Your task to perform on an android device: add a contact Image 0: 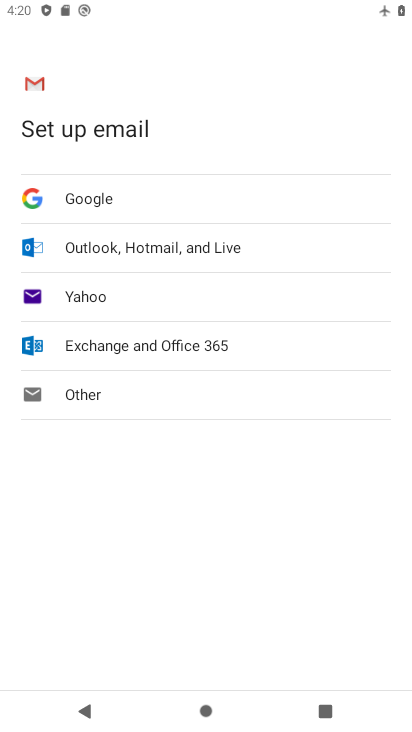
Step 0: press home button
Your task to perform on an android device: add a contact Image 1: 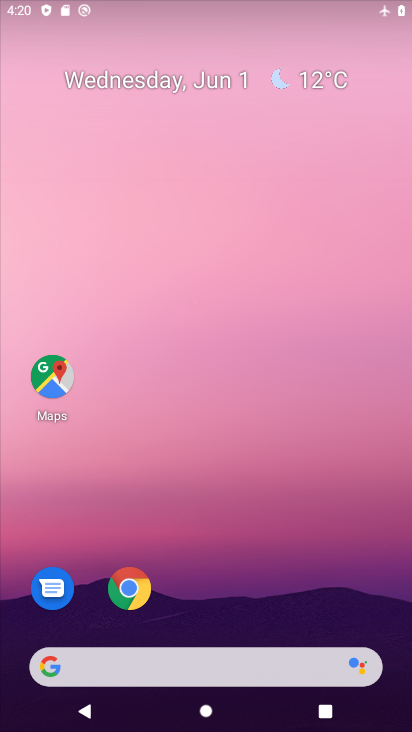
Step 1: drag from (293, 546) to (276, 0)
Your task to perform on an android device: add a contact Image 2: 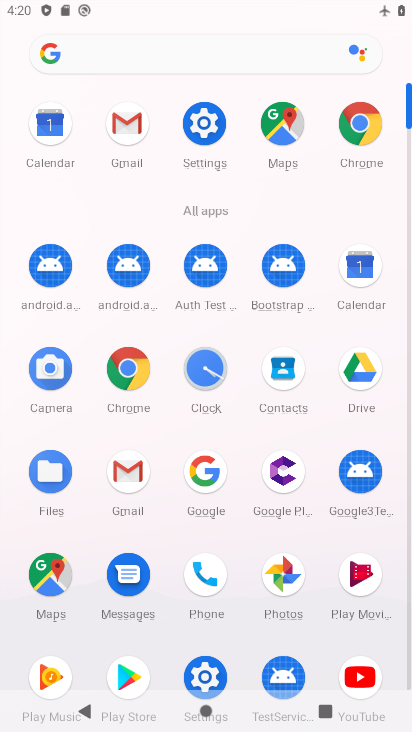
Step 2: click (198, 585)
Your task to perform on an android device: add a contact Image 3: 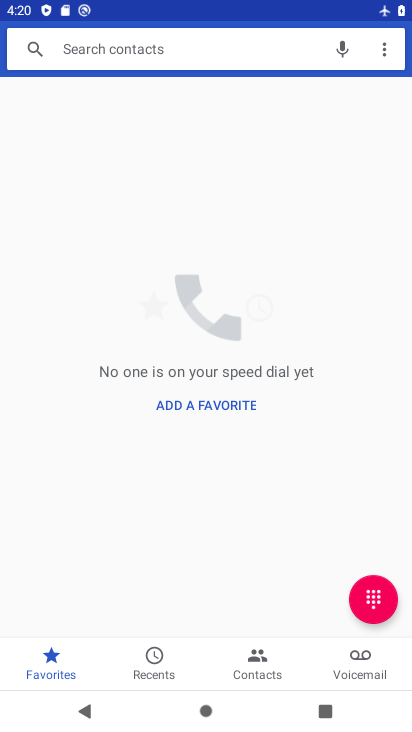
Step 3: click (277, 662)
Your task to perform on an android device: add a contact Image 4: 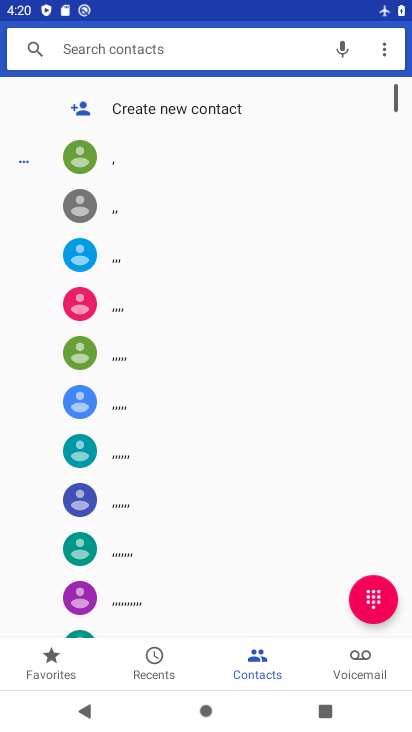
Step 4: click (160, 110)
Your task to perform on an android device: add a contact Image 5: 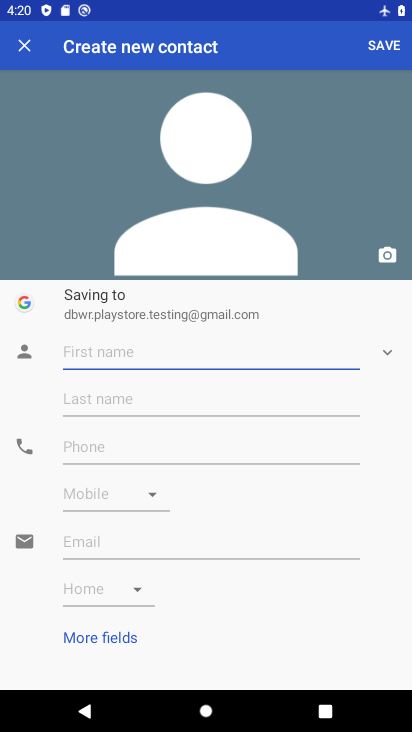
Step 5: type "teyyehy"
Your task to perform on an android device: add a contact Image 6: 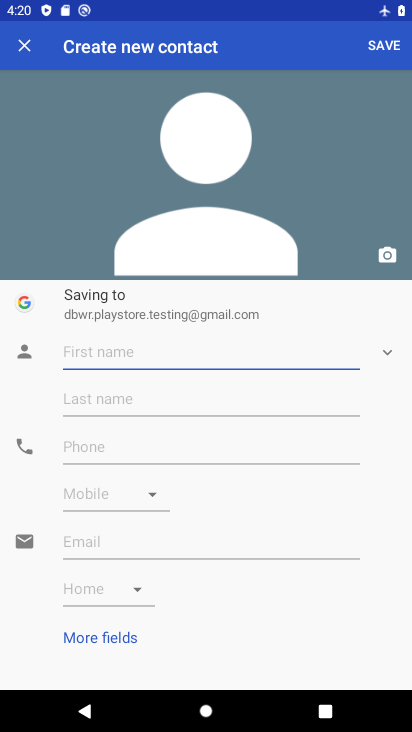
Step 6: click (144, 444)
Your task to perform on an android device: add a contact Image 7: 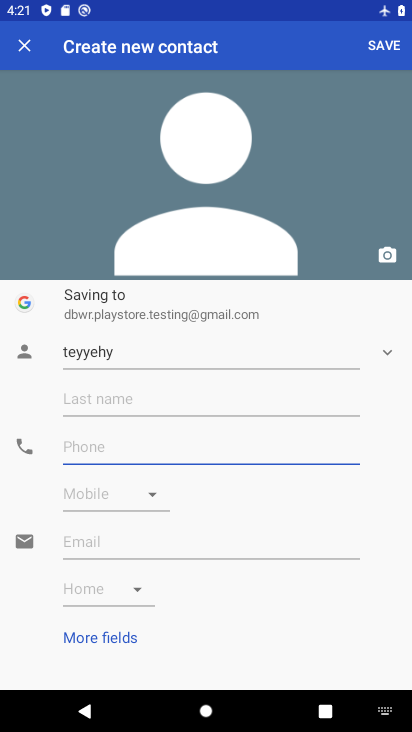
Step 7: type "4536763773"
Your task to perform on an android device: add a contact Image 8: 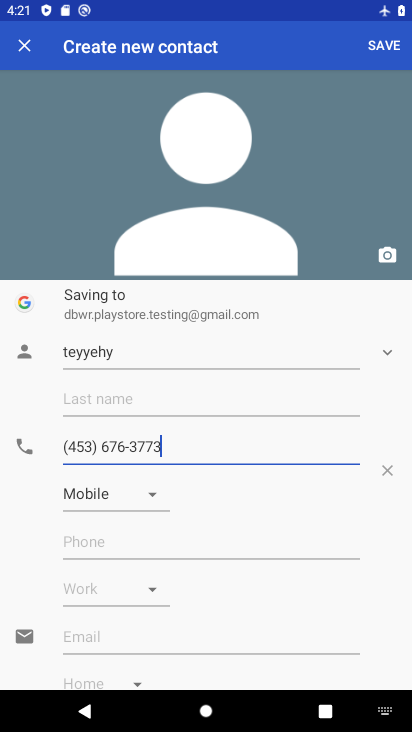
Step 8: click (378, 41)
Your task to perform on an android device: add a contact Image 9: 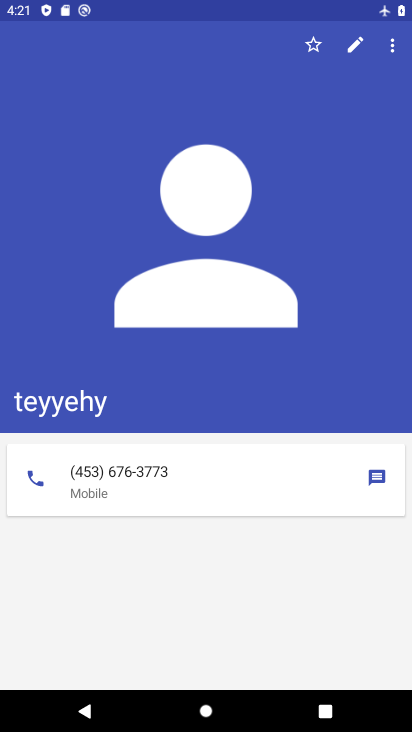
Step 9: task complete